Your task to perform on an android device: check google app version Image 0: 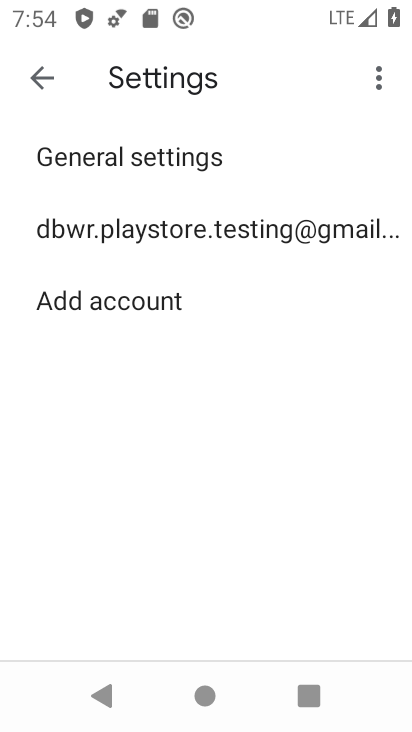
Step 0: press home button
Your task to perform on an android device: check google app version Image 1: 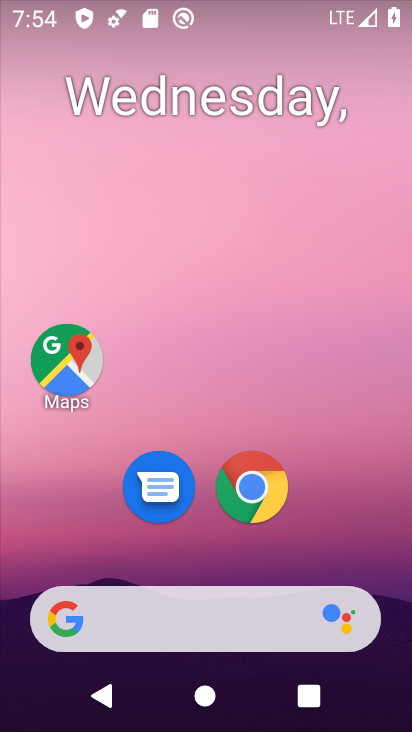
Step 1: drag from (41, 568) to (208, 176)
Your task to perform on an android device: check google app version Image 2: 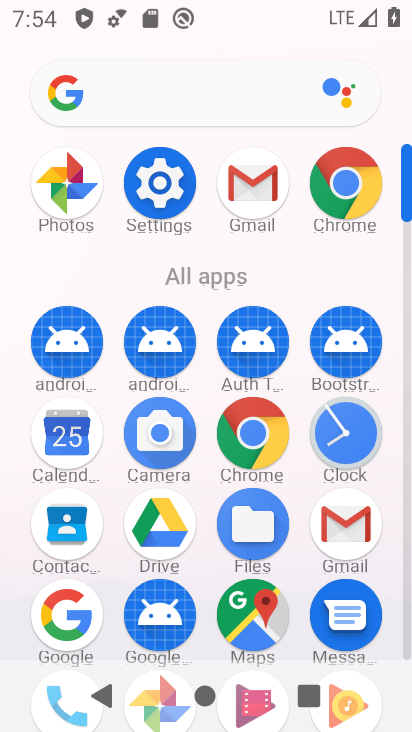
Step 2: drag from (7, 611) to (174, 238)
Your task to perform on an android device: check google app version Image 3: 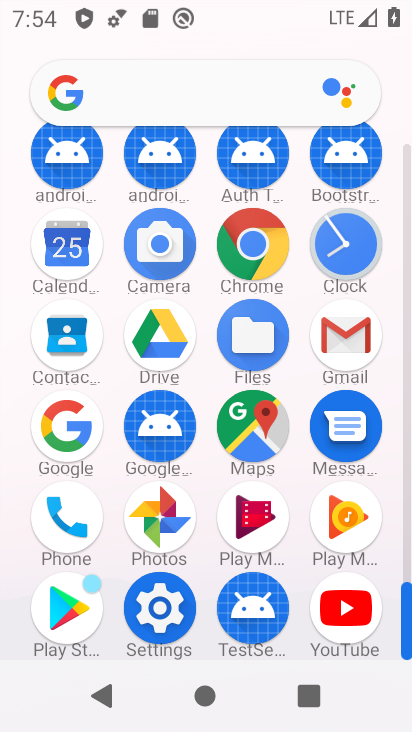
Step 3: click (159, 415)
Your task to perform on an android device: check google app version Image 4: 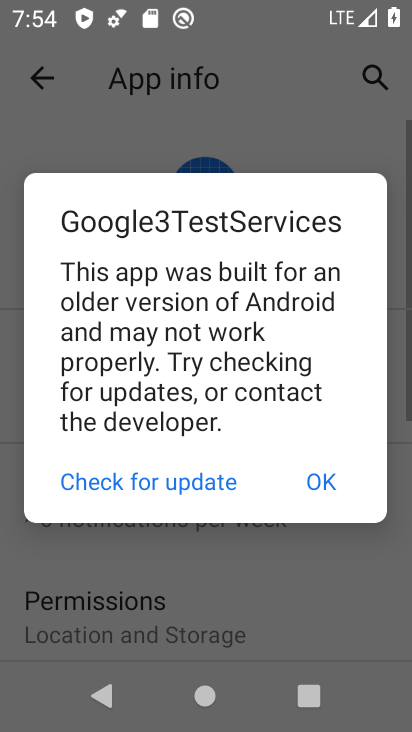
Step 4: click (322, 484)
Your task to perform on an android device: check google app version Image 5: 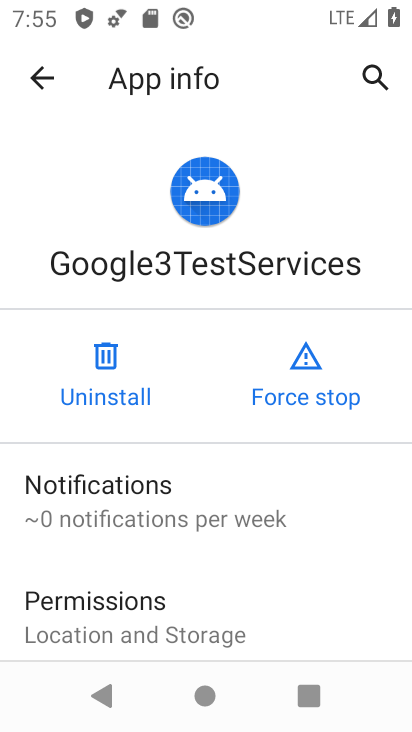
Step 5: drag from (8, 594) to (240, 207)
Your task to perform on an android device: check google app version Image 6: 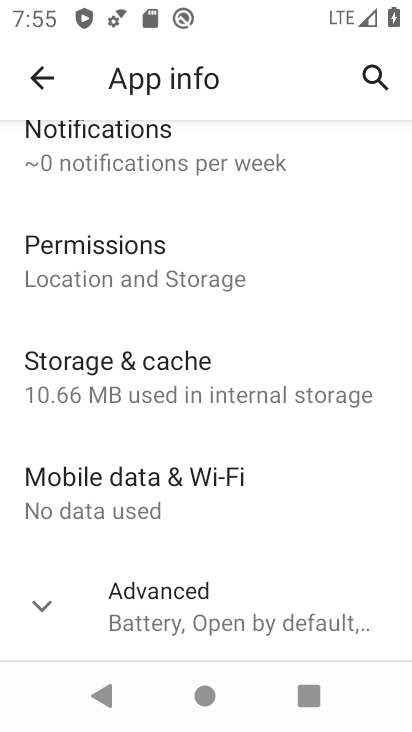
Step 6: drag from (10, 599) to (217, 278)
Your task to perform on an android device: check google app version Image 7: 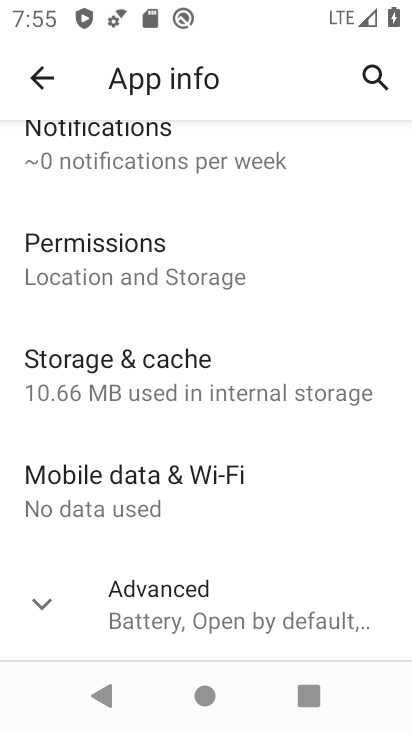
Step 7: click (239, 628)
Your task to perform on an android device: check google app version Image 8: 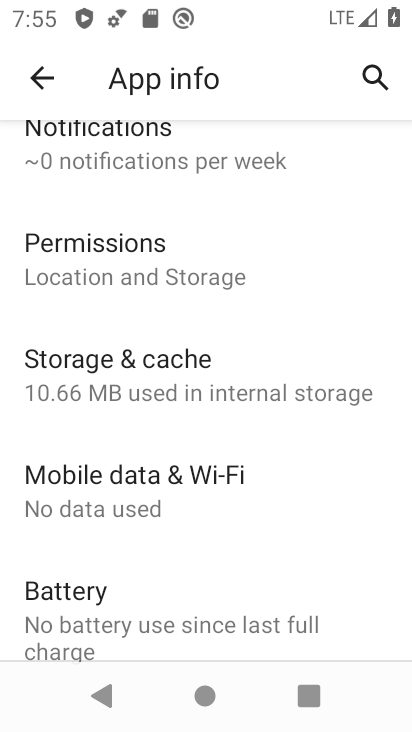
Step 8: task complete